Your task to perform on an android device: Go to display settings Image 0: 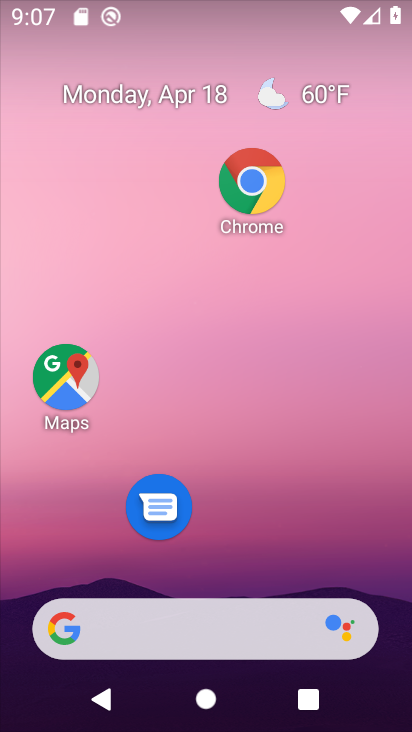
Step 0: click (400, 687)
Your task to perform on an android device: Go to display settings Image 1: 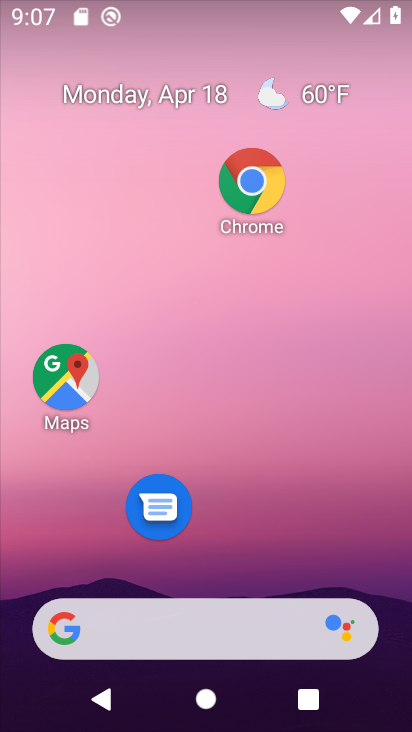
Step 1: drag from (161, 610) to (78, 65)
Your task to perform on an android device: Go to display settings Image 2: 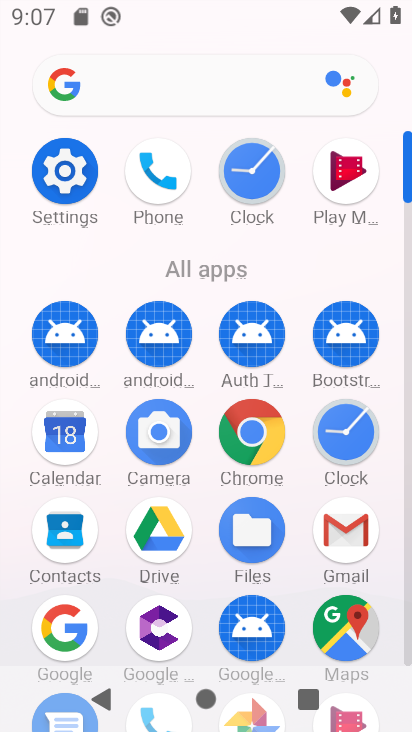
Step 2: click (56, 189)
Your task to perform on an android device: Go to display settings Image 3: 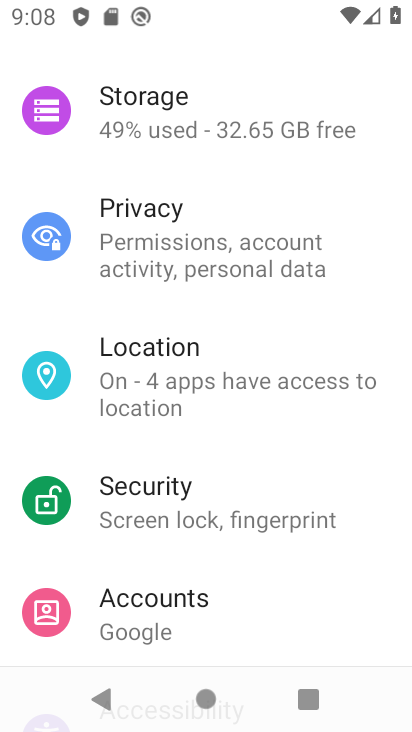
Step 3: drag from (221, 117) to (205, 728)
Your task to perform on an android device: Go to display settings Image 4: 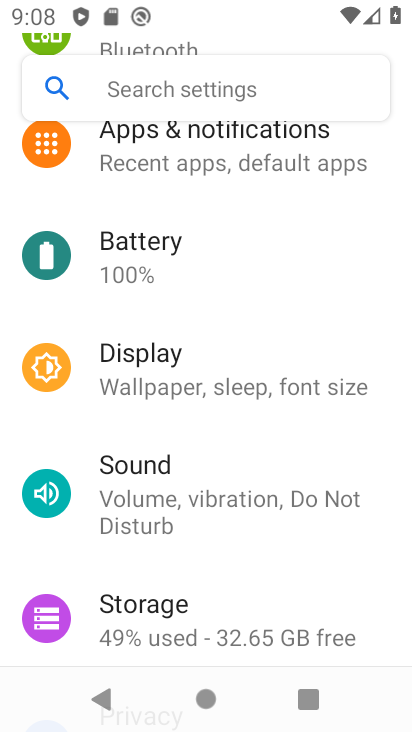
Step 4: click (164, 383)
Your task to perform on an android device: Go to display settings Image 5: 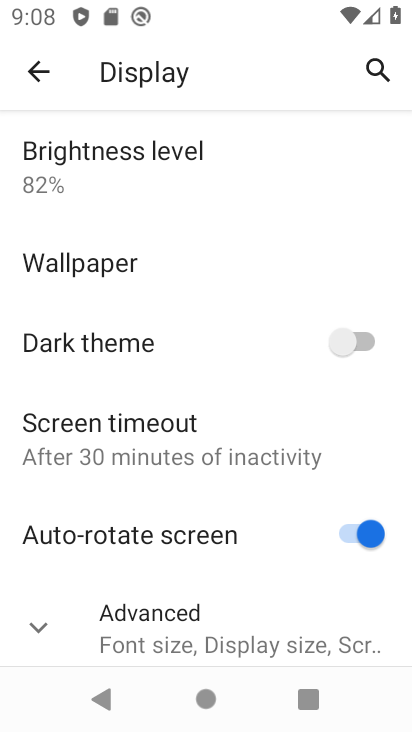
Step 5: task complete